Your task to perform on an android device: Show me popular games on the Play Store Image 0: 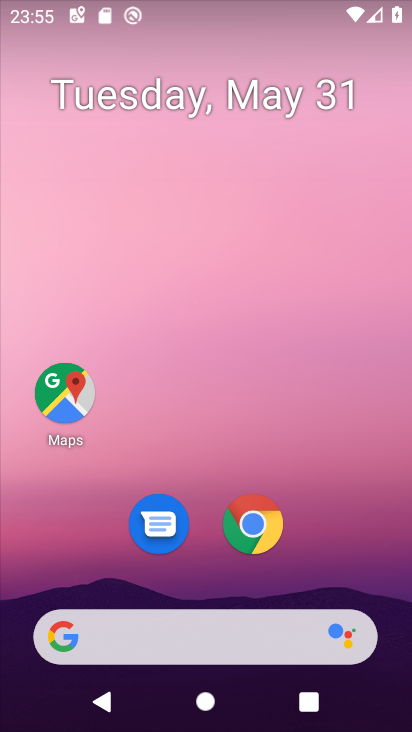
Step 0: drag from (223, 439) to (275, 1)
Your task to perform on an android device: Show me popular games on the Play Store Image 1: 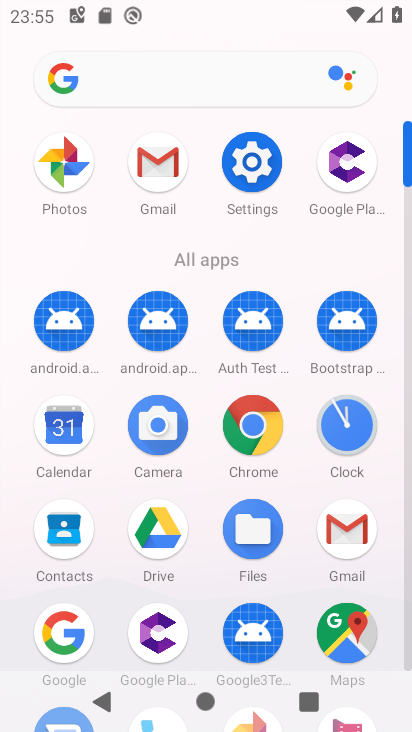
Step 1: drag from (210, 430) to (237, 60)
Your task to perform on an android device: Show me popular games on the Play Store Image 2: 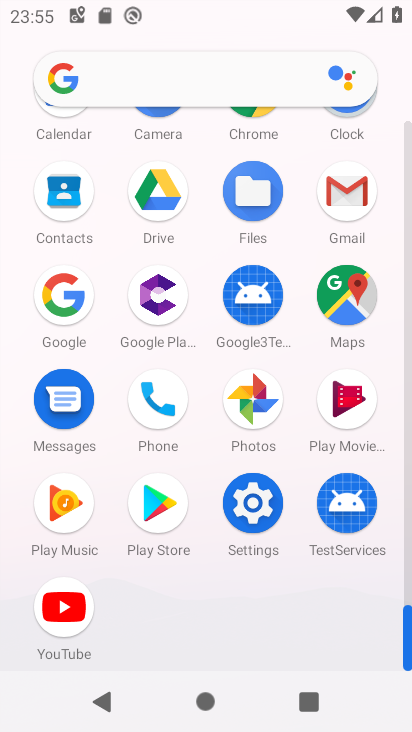
Step 2: click (157, 495)
Your task to perform on an android device: Show me popular games on the Play Store Image 3: 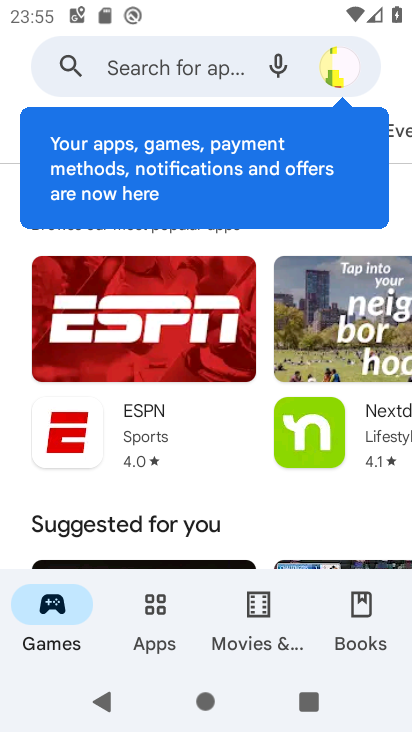
Step 3: drag from (267, 508) to (317, 118)
Your task to perform on an android device: Show me popular games on the Play Store Image 4: 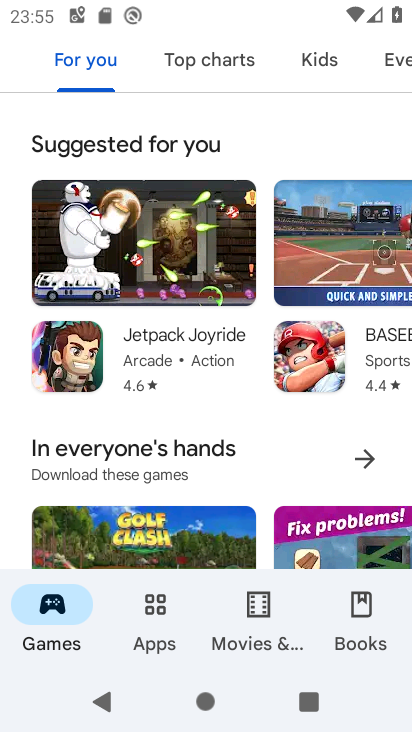
Step 4: drag from (272, 486) to (296, 36)
Your task to perform on an android device: Show me popular games on the Play Store Image 5: 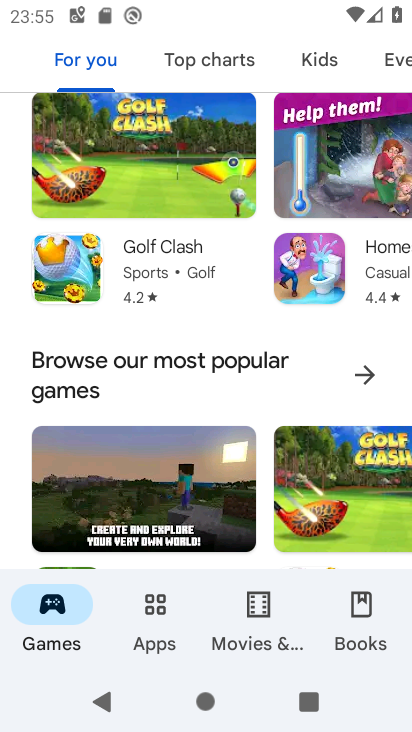
Step 5: click (365, 370)
Your task to perform on an android device: Show me popular games on the Play Store Image 6: 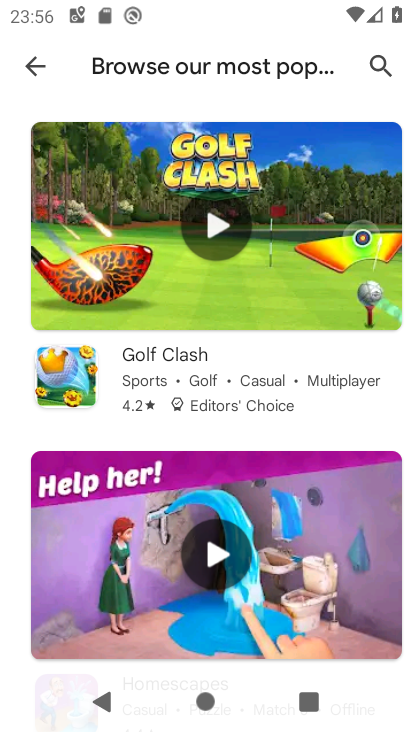
Step 6: task complete